Your task to perform on an android device: snooze an email in the gmail app Image 0: 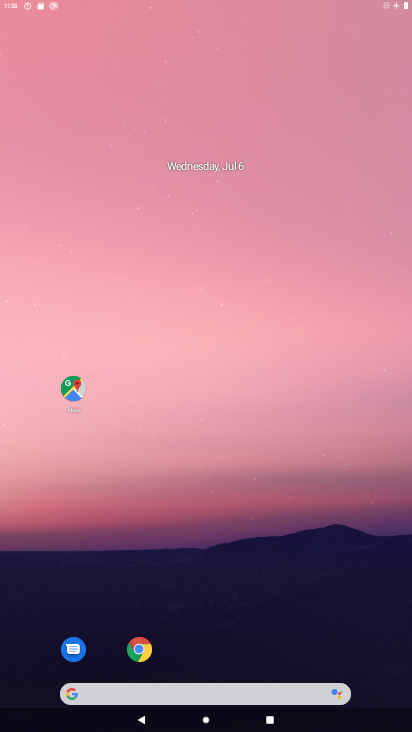
Step 0: click (48, 388)
Your task to perform on an android device: snooze an email in the gmail app Image 1: 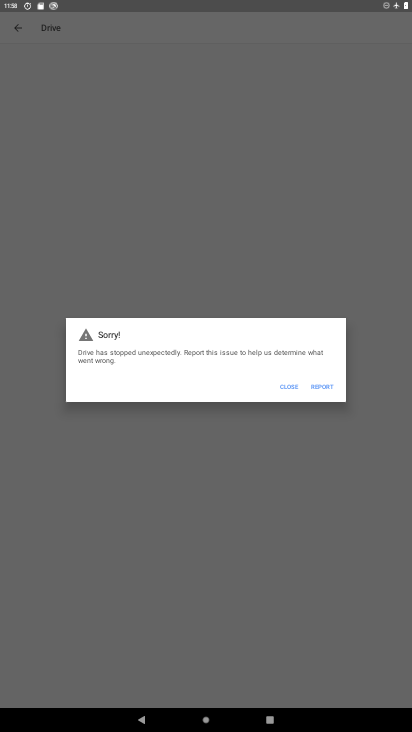
Step 1: press back button
Your task to perform on an android device: snooze an email in the gmail app Image 2: 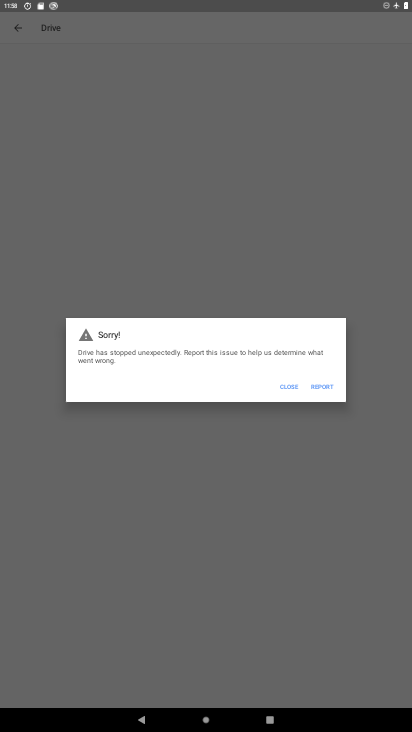
Step 2: press home button
Your task to perform on an android device: snooze an email in the gmail app Image 3: 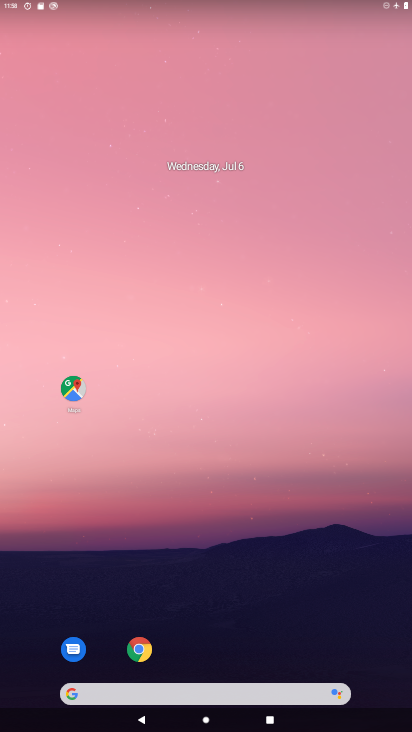
Step 3: drag from (393, 717) to (348, 254)
Your task to perform on an android device: snooze an email in the gmail app Image 4: 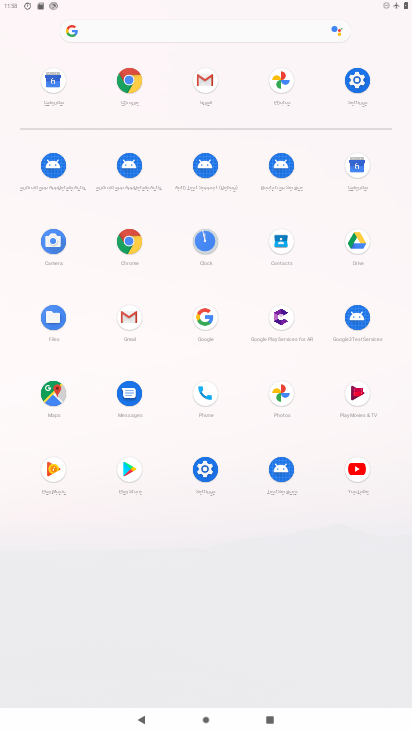
Step 4: click (198, 80)
Your task to perform on an android device: snooze an email in the gmail app Image 5: 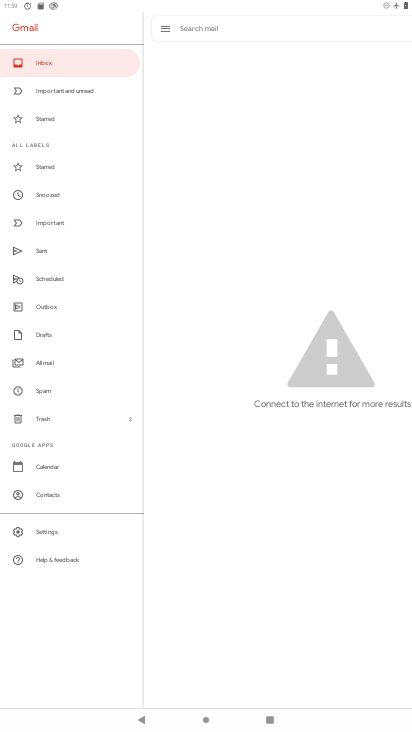
Step 5: task complete